Your task to perform on an android device: toggle javascript in the chrome app Image 0: 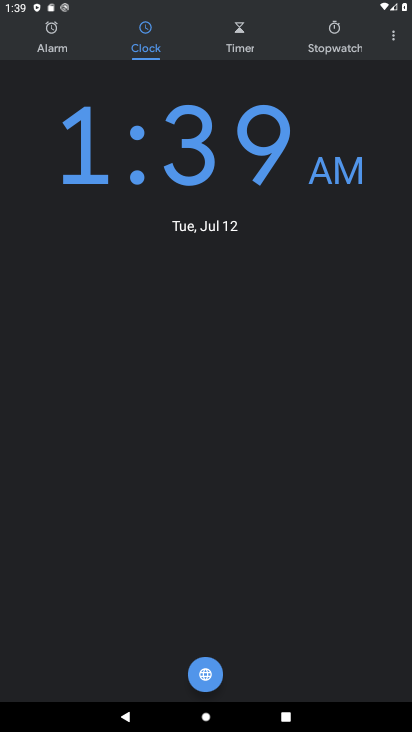
Step 0: press home button
Your task to perform on an android device: toggle javascript in the chrome app Image 1: 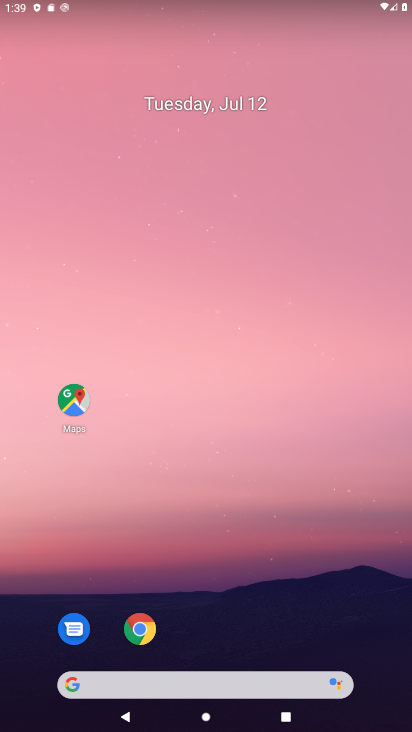
Step 1: click (144, 620)
Your task to perform on an android device: toggle javascript in the chrome app Image 2: 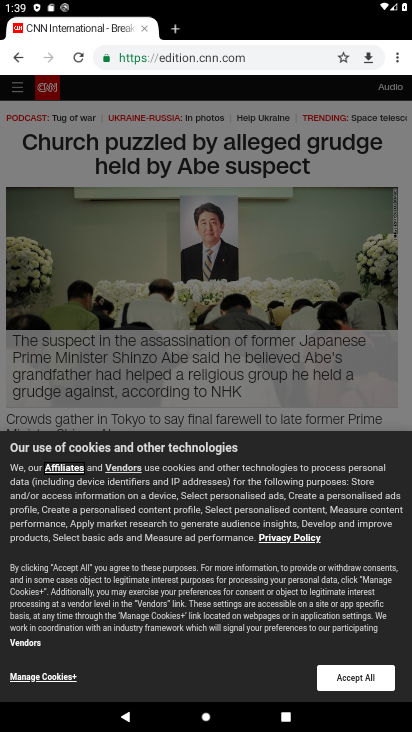
Step 2: click (398, 59)
Your task to perform on an android device: toggle javascript in the chrome app Image 3: 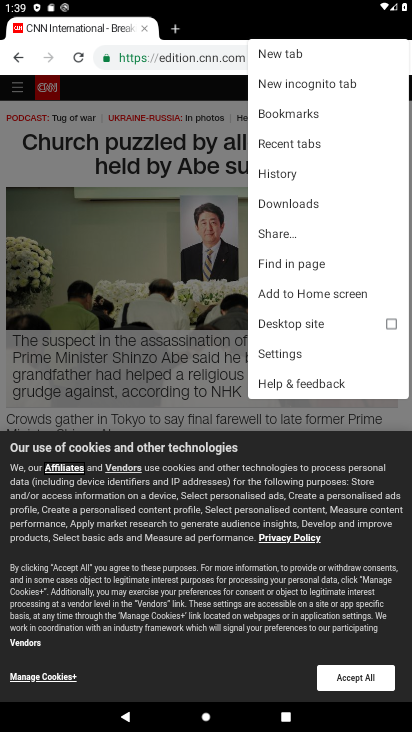
Step 3: click (325, 354)
Your task to perform on an android device: toggle javascript in the chrome app Image 4: 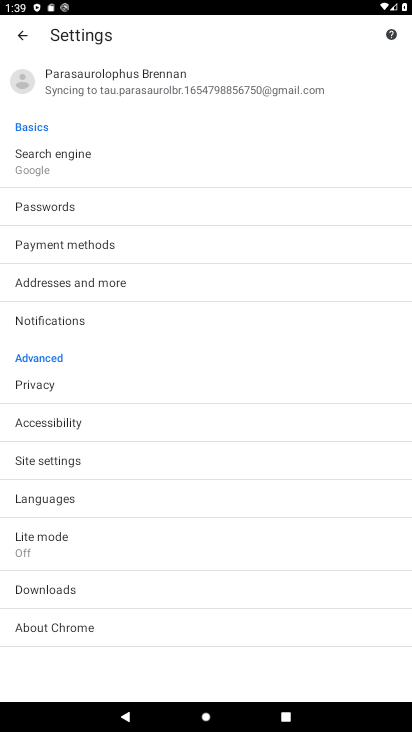
Step 4: click (135, 455)
Your task to perform on an android device: toggle javascript in the chrome app Image 5: 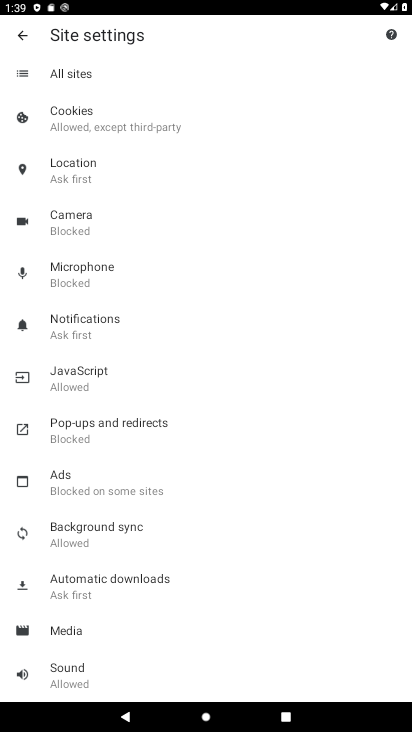
Step 5: click (118, 377)
Your task to perform on an android device: toggle javascript in the chrome app Image 6: 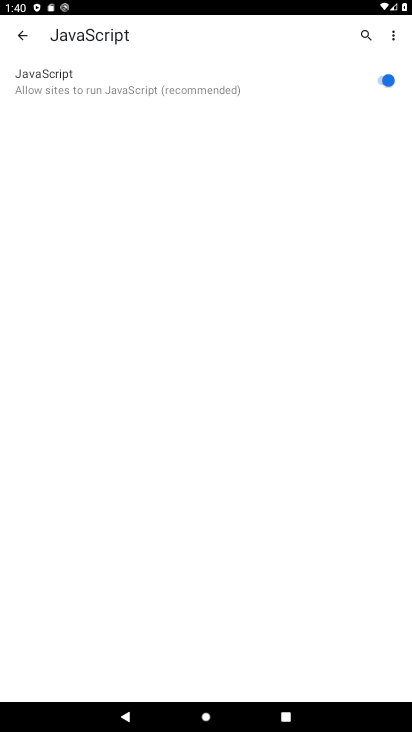
Step 6: click (382, 79)
Your task to perform on an android device: toggle javascript in the chrome app Image 7: 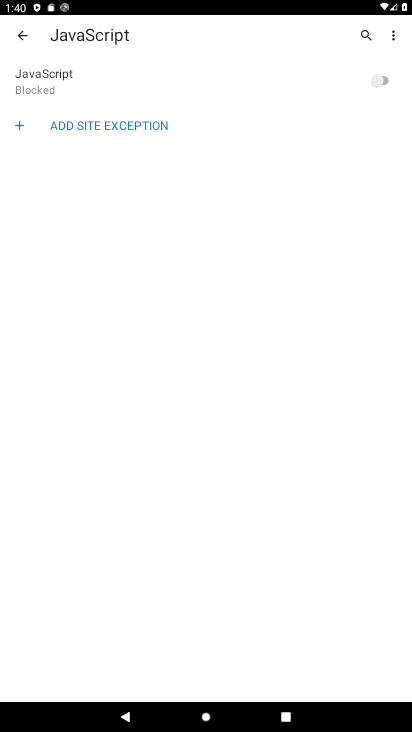
Step 7: task complete